Your task to perform on an android device: Open the calendar app, open the side menu, and click the "Day" option Image 0: 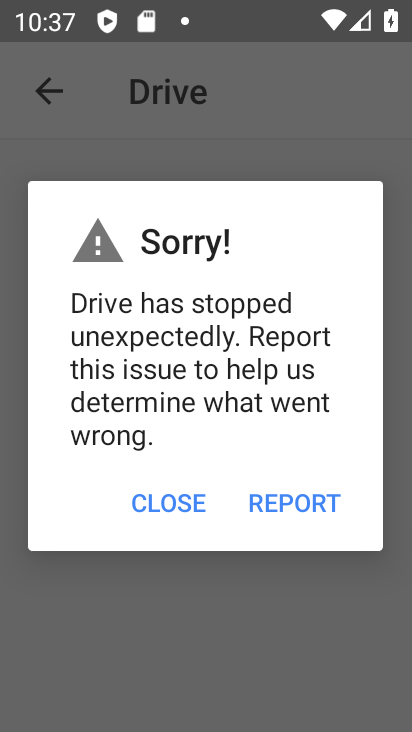
Step 0: press home button
Your task to perform on an android device: Open the calendar app, open the side menu, and click the "Day" option Image 1: 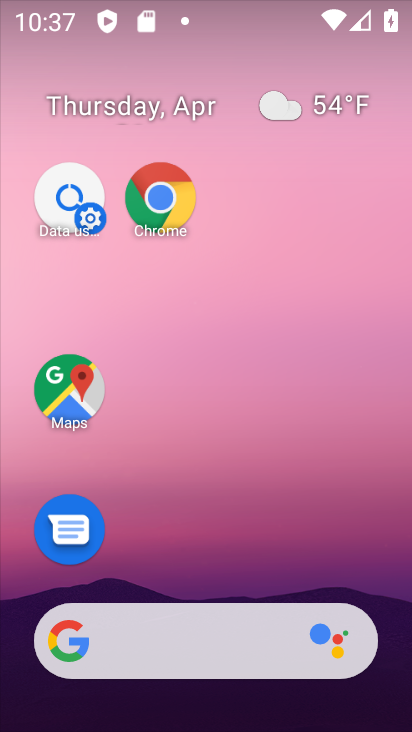
Step 1: drag from (227, 589) to (270, 66)
Your task to perform on an android device: Open the calendar app, open the side menu, and click the "Day" option Image 2: 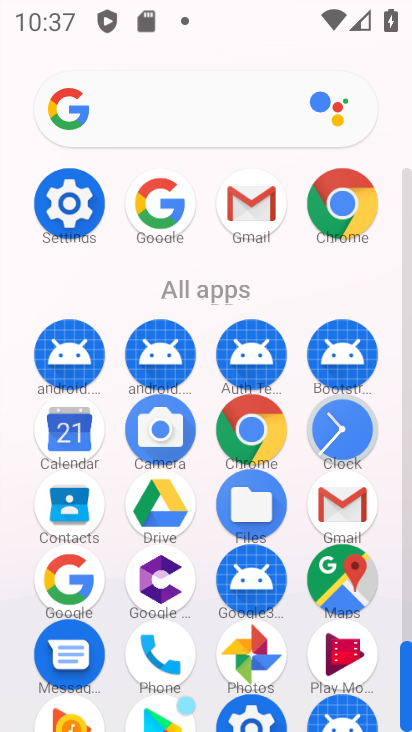
Step 2: click (81, 435)
Your task to perform on an android device: Open the calendar app, open the side menu, and click the "Day" option Image 3: 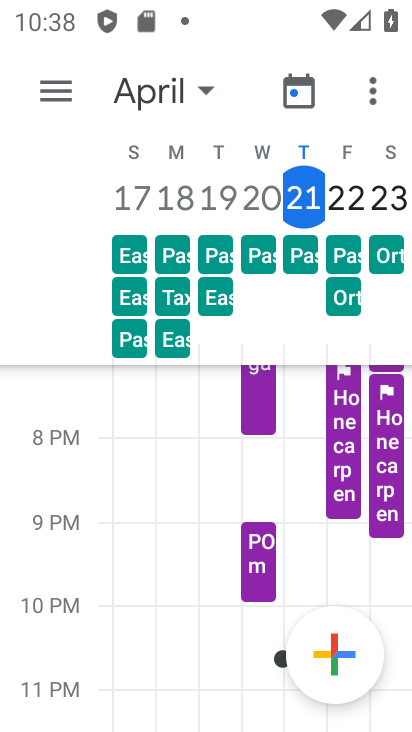
Step 3: click (57, 80)
Your task to perform on an android device: Open the calendar app, open the side menu, and click the "Day" option Image 4: 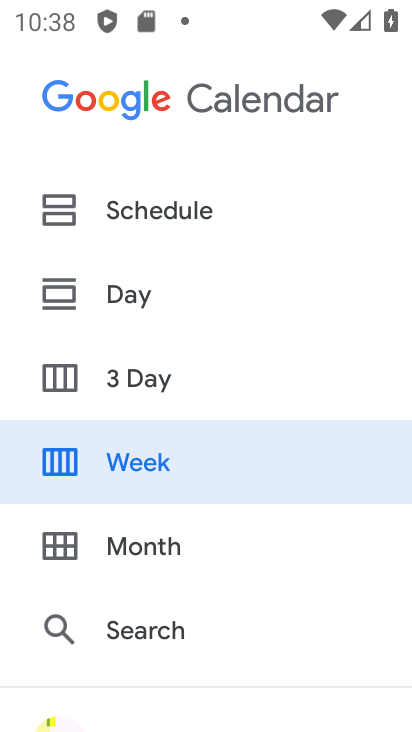
Step 4: click (138, 293)
Your task to perform on an android device: Open the calendar app, open the side menu, and click the "Day" option Image 5: 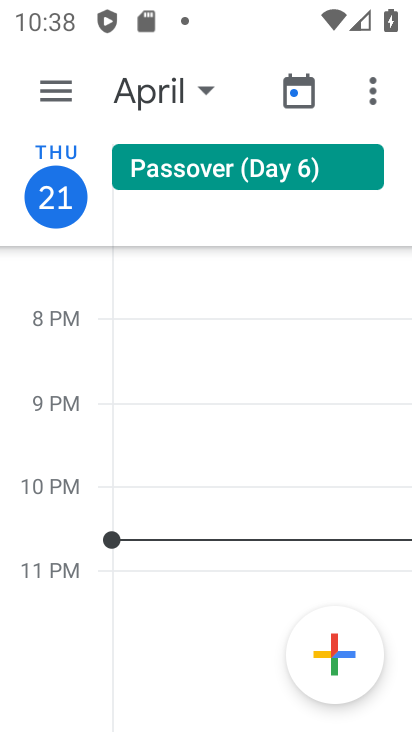
Step 5: task complete